Your task to perform on an android device: change timer sound Image 0: 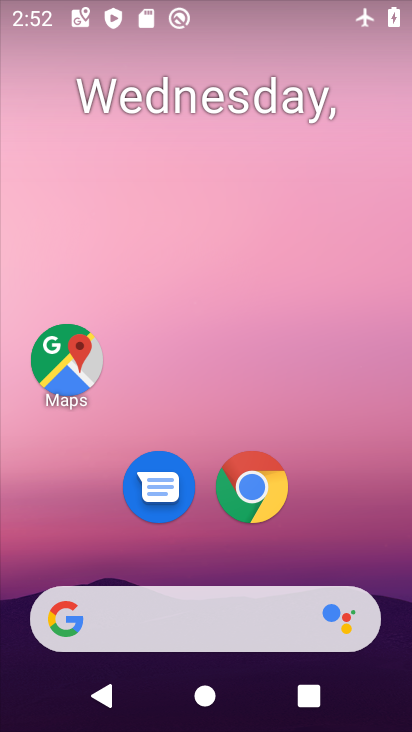
Step 0: drag from (355, 510) to (250, 95)
Your task to perform on an android device: change timer sound Image 1: 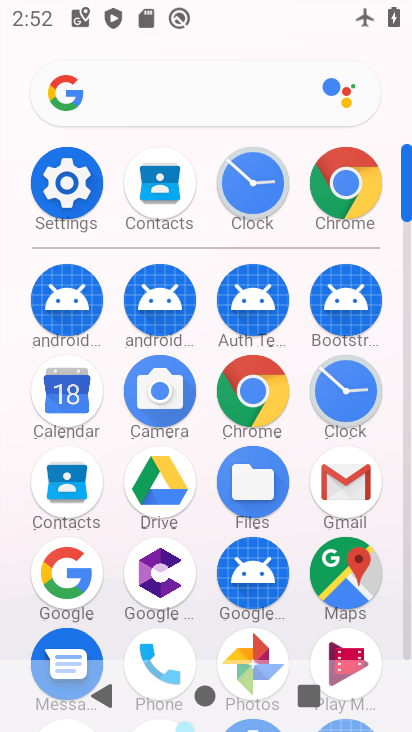
Step 1: click (327, 380)
Your task to perform on an android device: change timer sound Image 2: 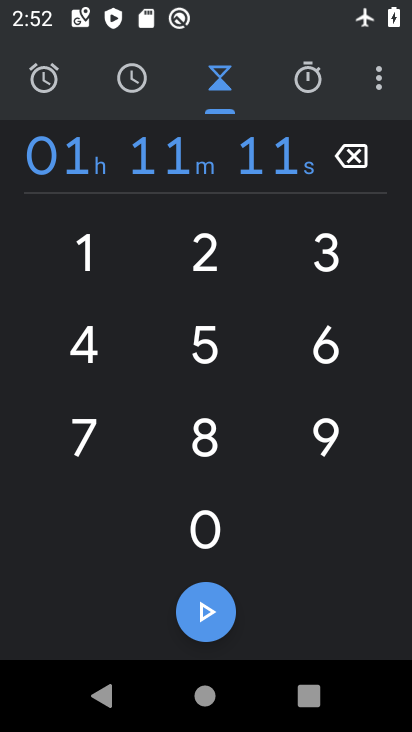
Step 2: click (377, 78)
Your task to perform on an android device: change timer sound Image 3: 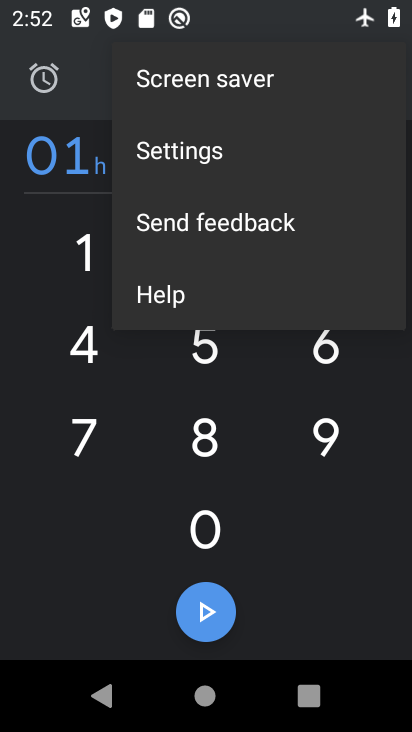
Step 3: click (201, 148)
Your task to perform on an android device: change timer sound Image 4: 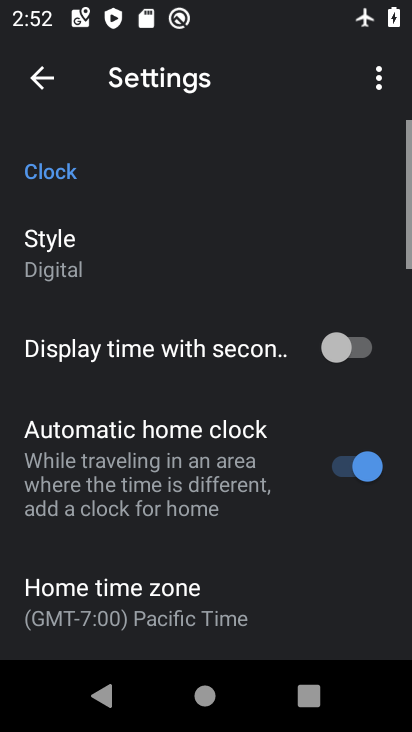
Step 4: drag from (264, 517) to (169, 121)
Your task to perform on an android device: change timer sound Image 5: 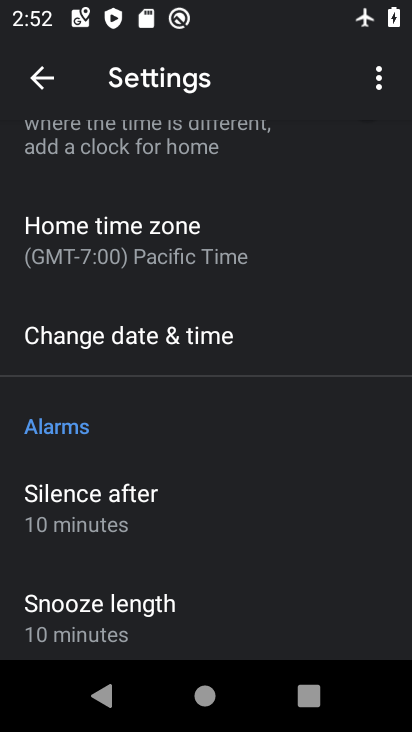
Step 5: drag from (266, 526) to (216, 261)
Your task to perform on an android device: change timer sound Image 6: 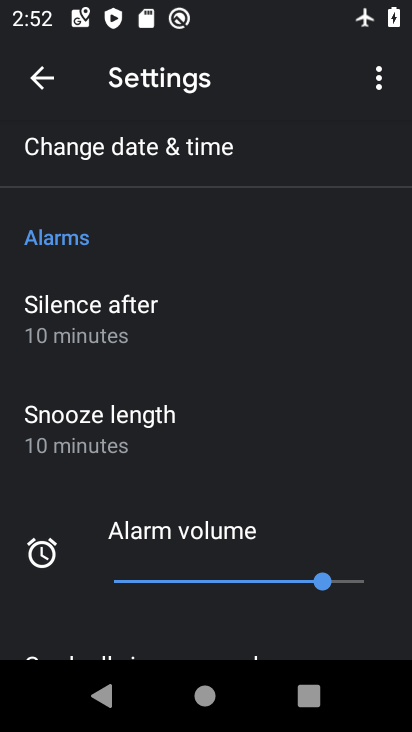
Step 6: drag from (201, 450) to (152, 177)
Your task to perform on an android device: change timer sound Image 7: 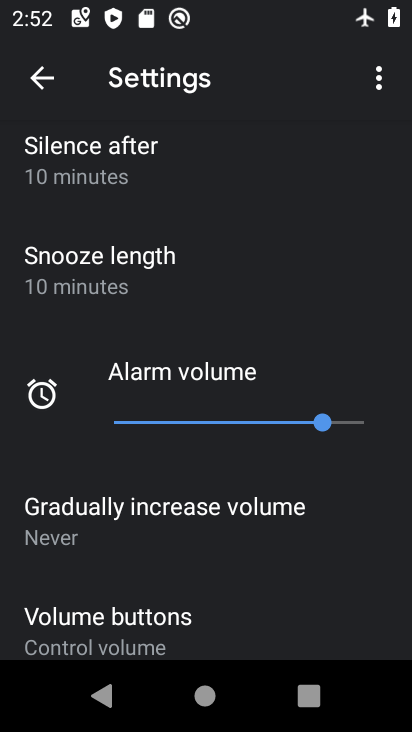
Step 7: drag from (109, 584) to (52, 205)
Your task to perform on an android device: change timer sound Image 8: 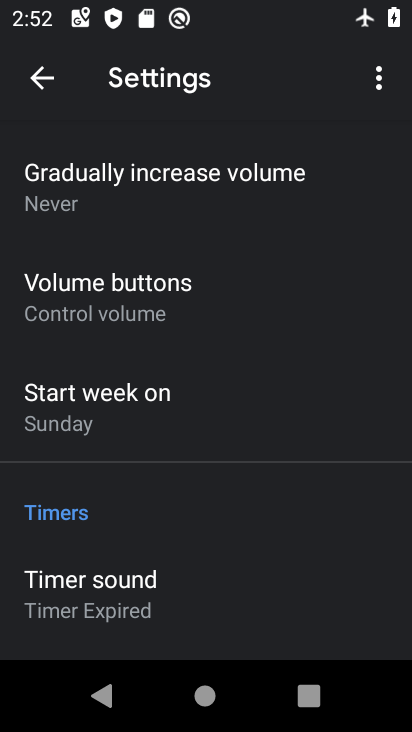
Step 8: click (123, 583)
Your task to perform on an android device: change timer sound Image 9: 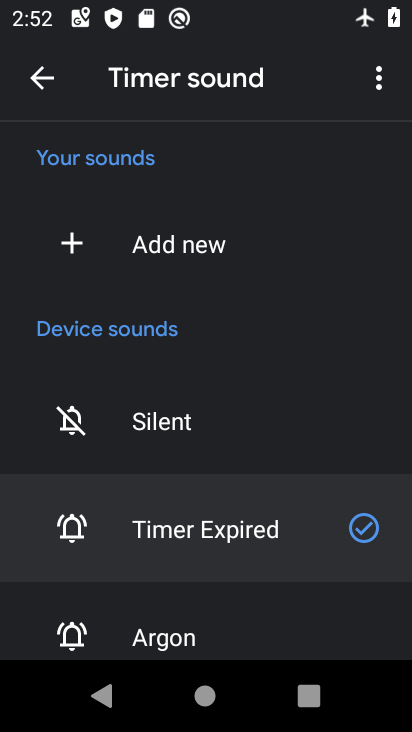
Step 9: click (161, 630)
Your task to perform on an android device: change timer sound Image 10: 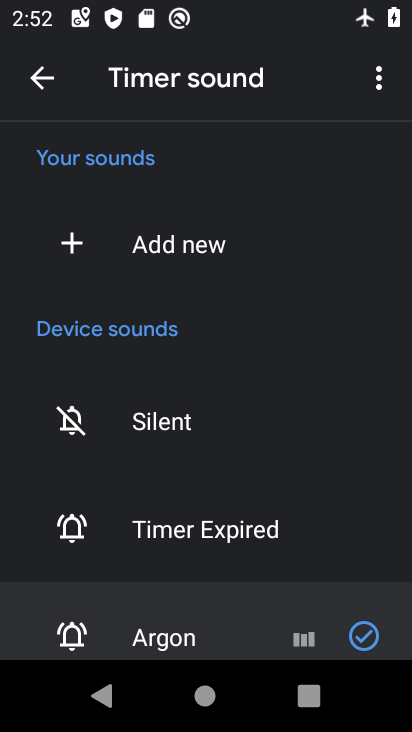
Step 10: task complete